Your task to perform on an android device: change keyboard looks Image 0: 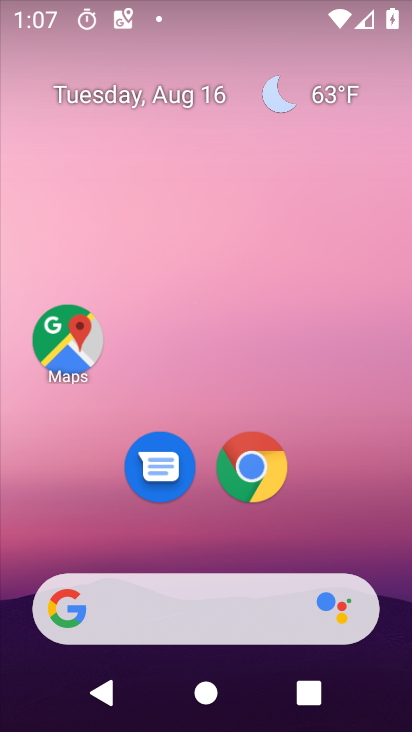
Step 0: press home button
Your task to perform on an android device: change keyboard looks Image 1: 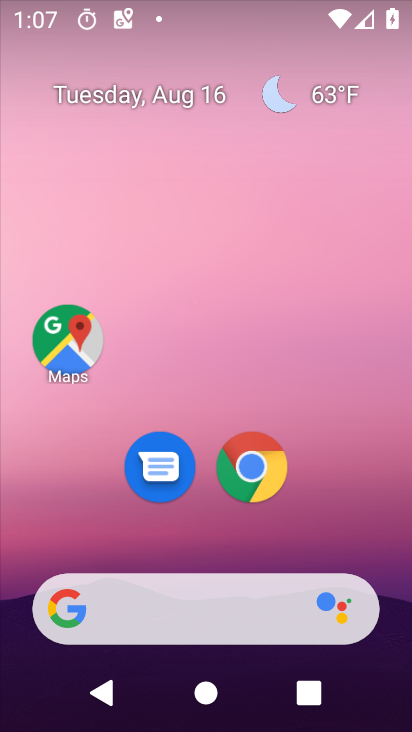
Step 1: drag from (375, 559) to (353, 143)
Your task to perform on an android device: change keyboard looks Image 2: 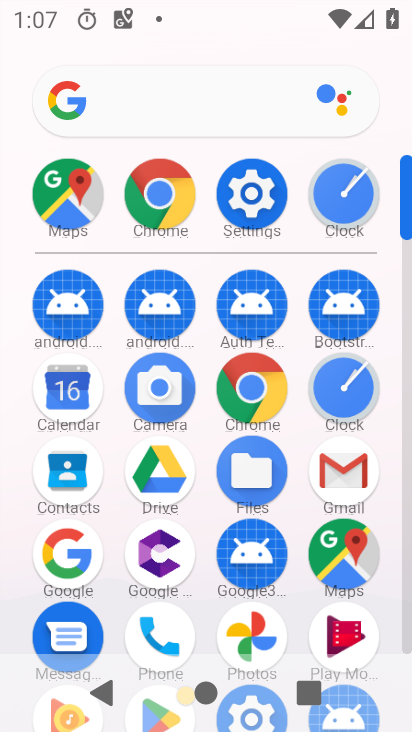
Step 2: click (247, 213)
Your task to perform on an android device: change keyboard looks Image 3: 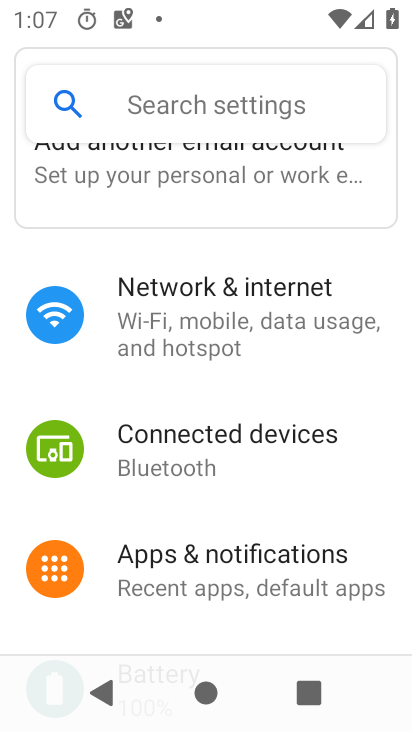
Step 3: drag from (366, 488) to (390, 380)
Your task to perform on an android device: change keyboard looks Image 4: 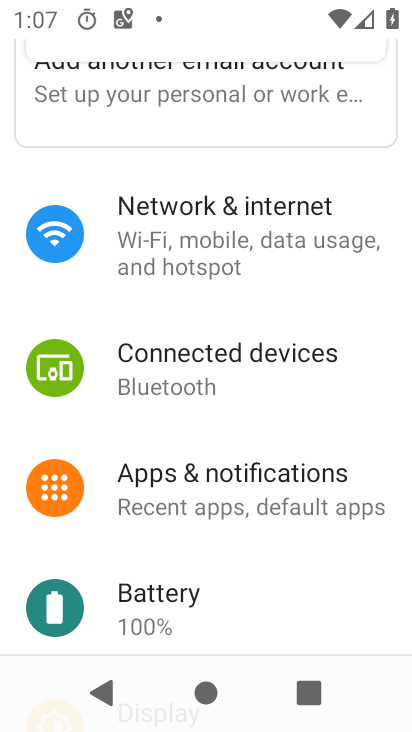
Step 4: drag from (377, 580) to (388, 433)
Your task to perform on an android device: change keyboard looks Image 5: 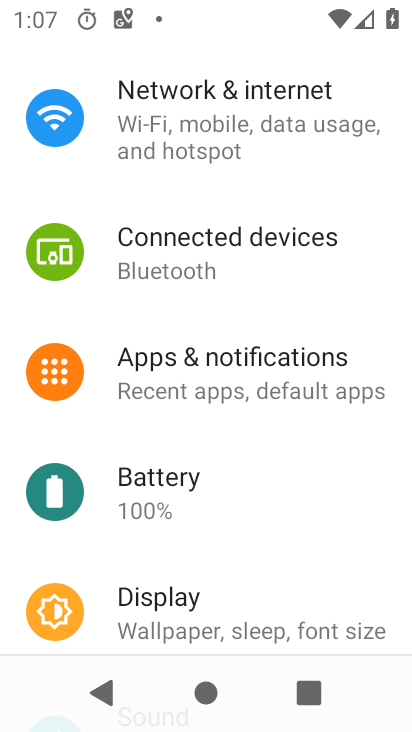
Step 5: drag from (339, 538) to (362, 327)
Your task to perform on an android device: change keyboard looks Image 6: 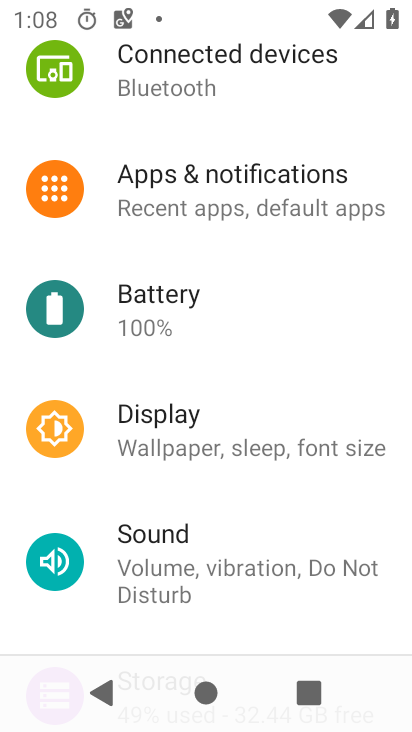
Step 6: drag from (351, 450) to (351, 330)
Your task to perform on an android device: change keyboard looks Image 7: 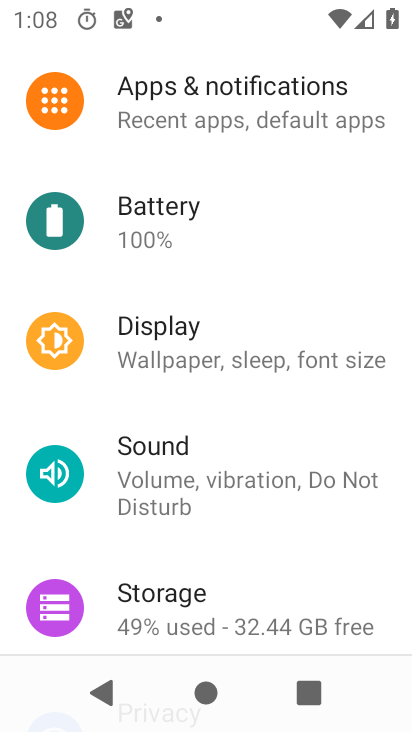
Step 7: drag from (350, 538) to (349, 324)
Your task to perform on an android device: change keyboard looks Image 8: 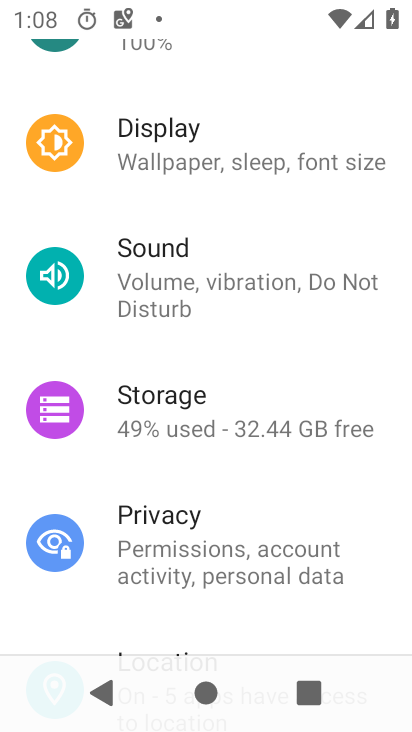
Step 8: drag from (335, 513) to (351, 351)
Your task to perform on an android device: change keyboard looks Image 9: 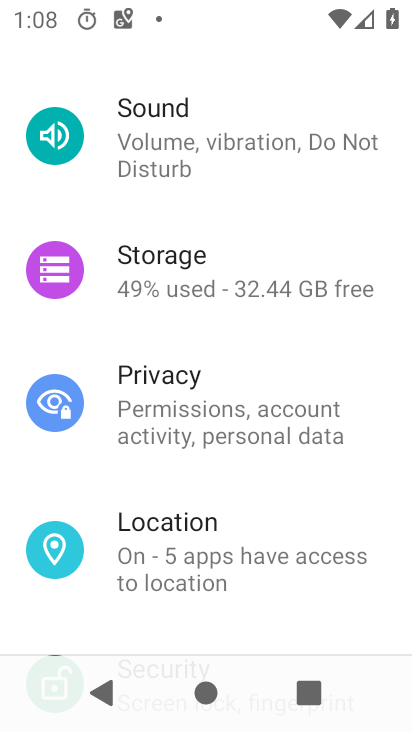
Step 9: drag from (324, 559) to (349, 377)
Your task to perform on an android device: change keyboard looks Image 10: 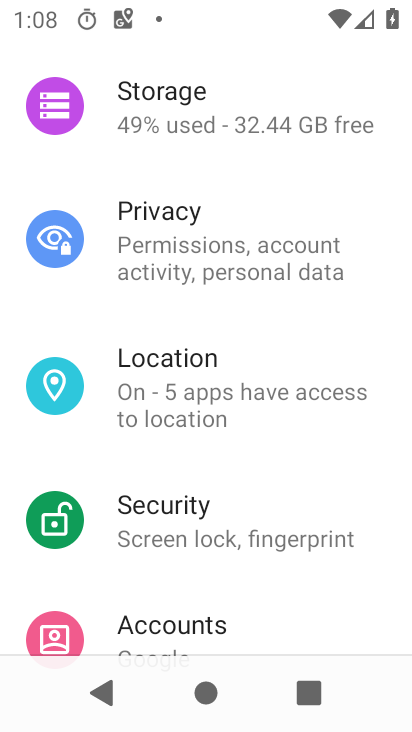
Step 10: drag from (333, 543) to (346, 406)
Your task to perform on an android device: change keyboard looks Image 11: 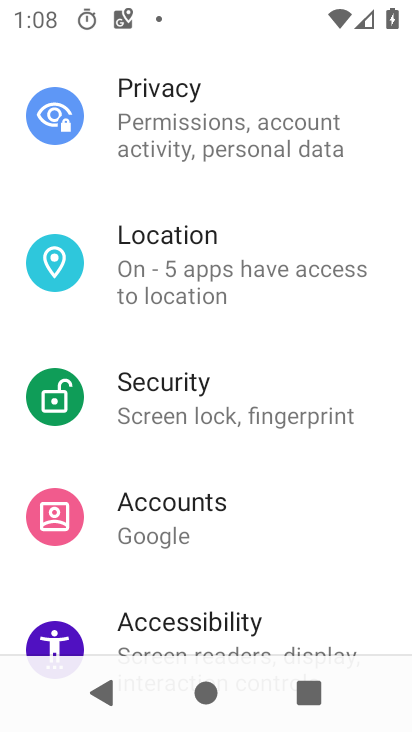
Step 11: drag from (327, 578) to (327, 450)
Your task to perform on an android device: change keyboard looks Image 12: 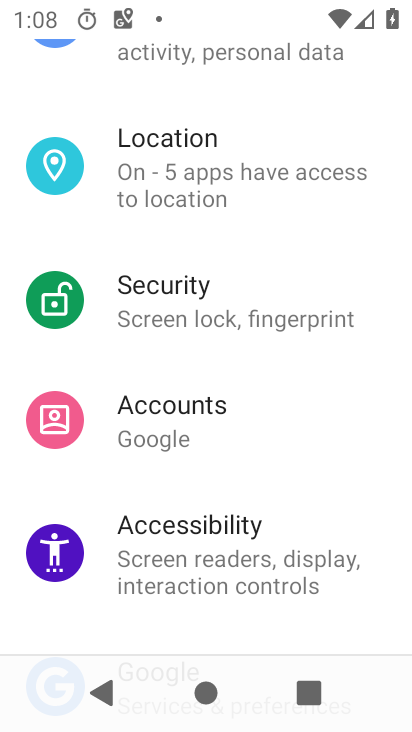
Step 12: drag from (352, 610) to (352, 438)
Your task to perform on an android device: change keyboard looks Image 13: 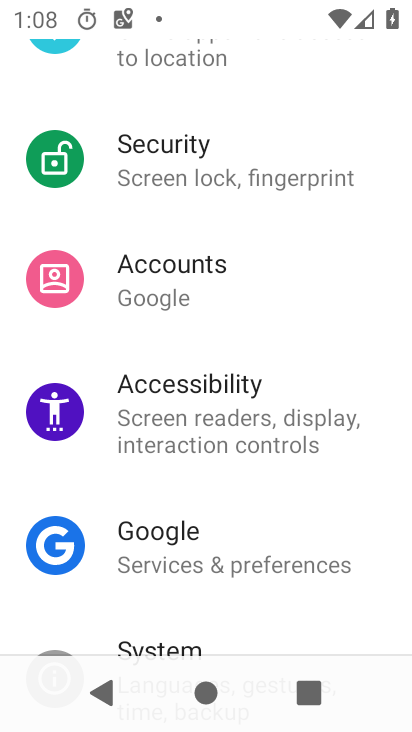
Step 13: drag from (338, 632) to (353, 464)
Your task to perform on an android device: change keyboard looks Image 14: 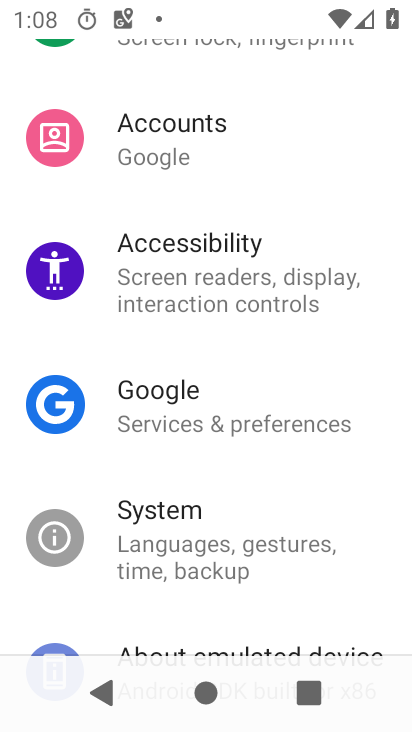
Step 14: drag from (354, 609) to (367, 464)
Your task to perform on an android device: change keyboard looks Image 15: 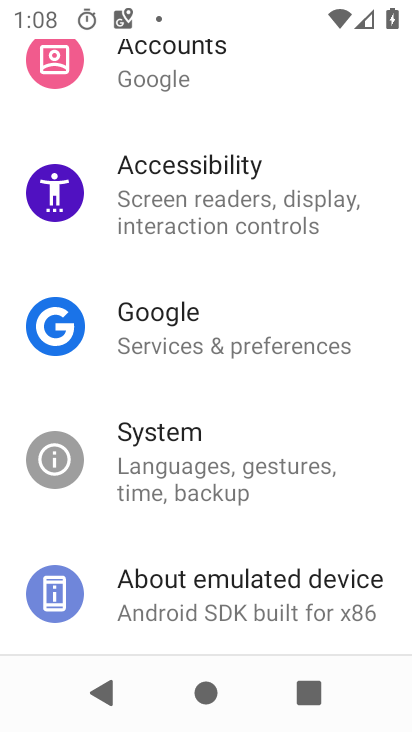
Step 15: click (281, 454)
Your task to perform on an android device: change keyboard looks Image 16: 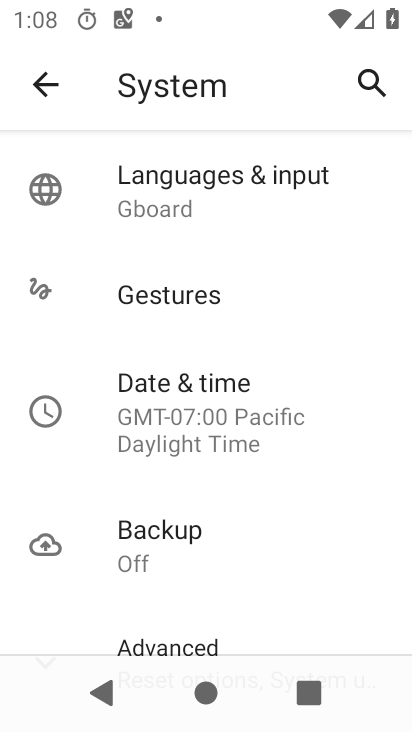
Step 16: click (201, 191)
Your task to perform on an android device: change keyboard looks Image 17: 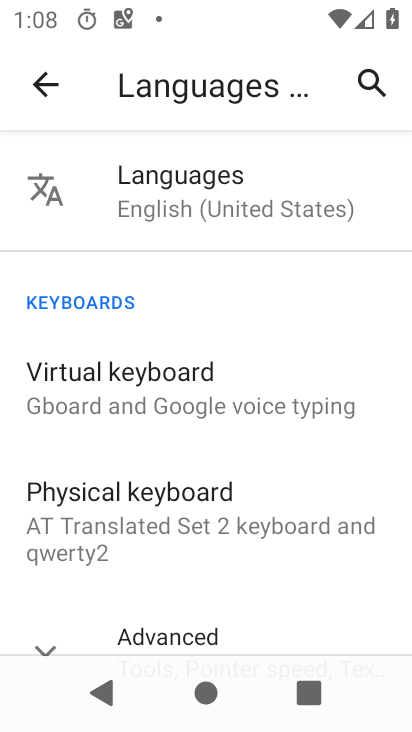
Step 17: click (195, 383)
Your task to perform on an android device: change keyboard looks Image 18: 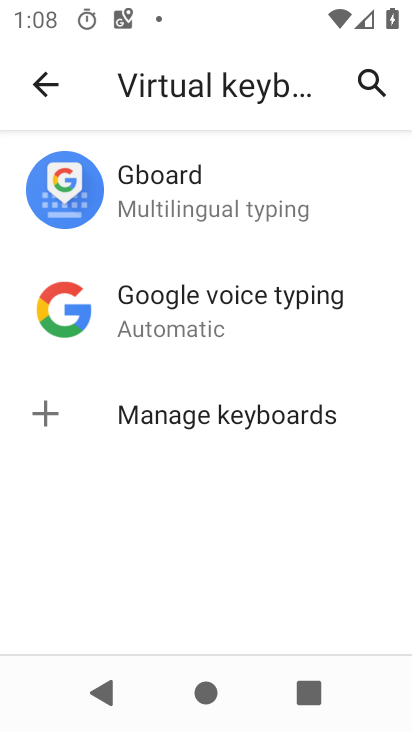
Step 18: click (204, 197)
Your task to perform on an android device: change keyboard looks Image 19: 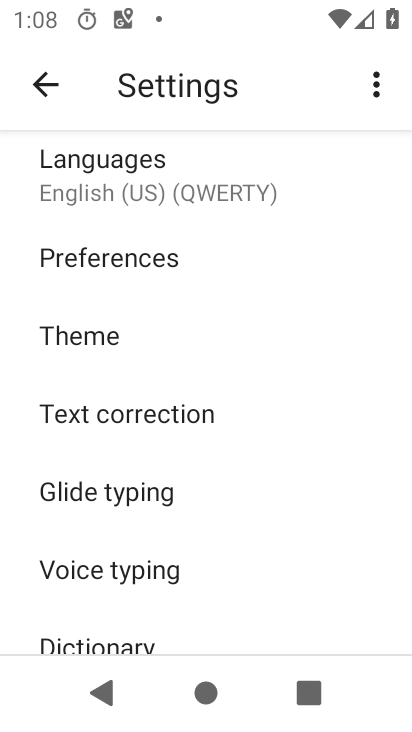
Step 19: click (188, 339)
Your task to perform on an android device: change keyboard looks Image 20: 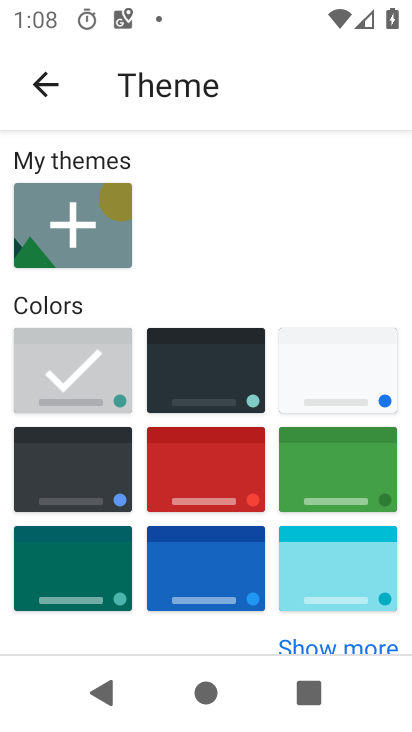
Step 20: click (211, 444)
Your task to perform on an android device: change keyboard looks Image 21: 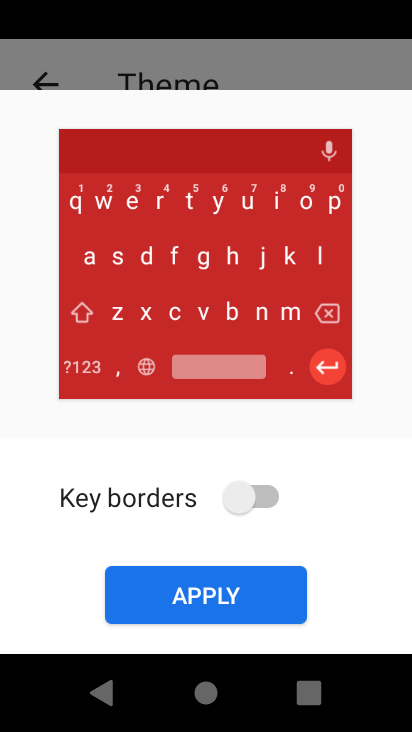
Step 21: click (198, 612)
Your task to perform on an android device: change keyboard looks Image 22: 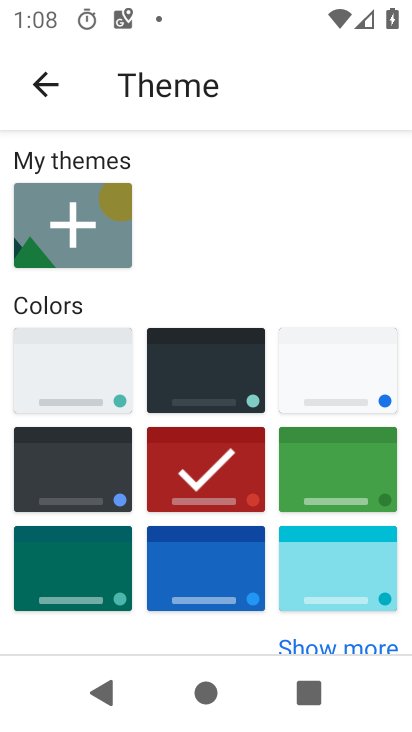
Step 22: task complete